Your task to perform on an android device: Open sound settings Image 0: 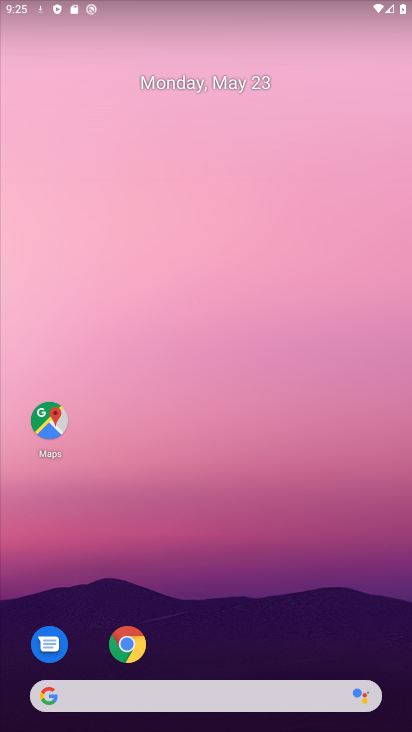
Step 0: drag from (272, 701) to (269, 294)
Your task to perform on an android device: Open sound settings Image 1: 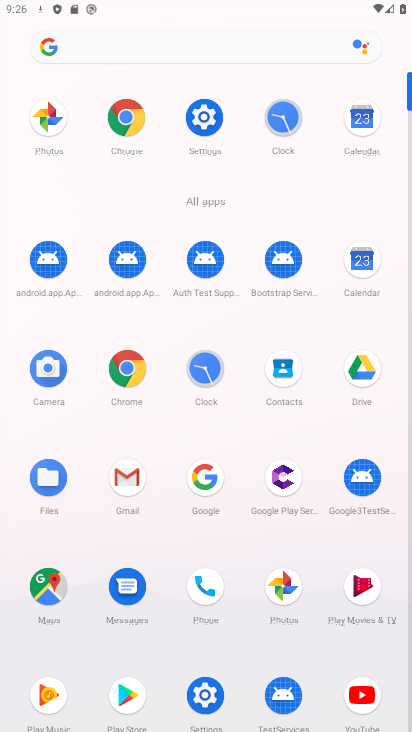
Step 1: click (203, 130)
Your task to perform on an android device: Open sound settings Image 2: 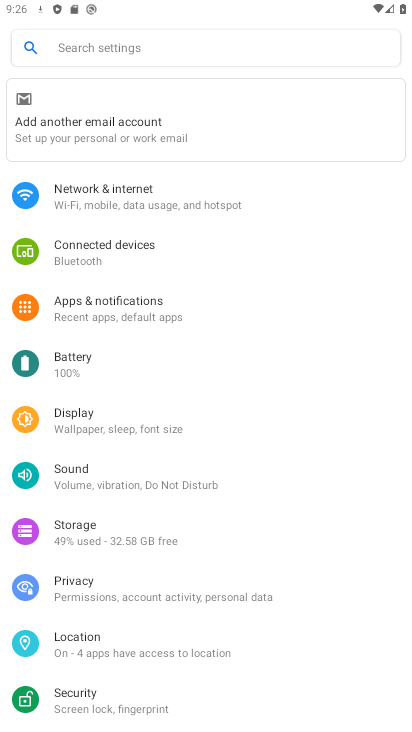
Step 2: click (142, 44)
Your task to perform on an android device: Open sound settings Image 3: 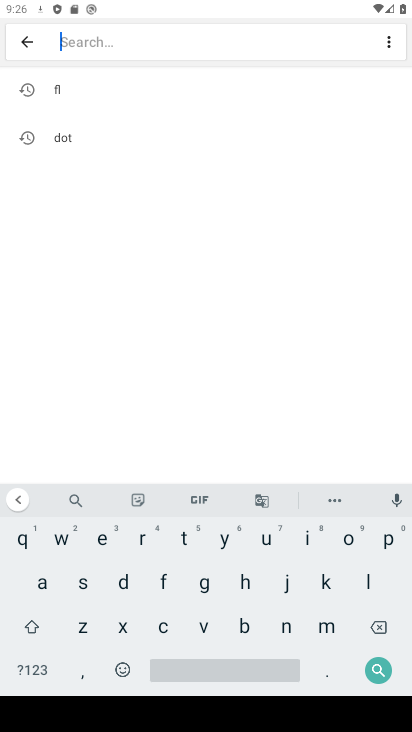
Step 3: click (48, 587)
Your task to perform on an android device: Open sound settings Image 4: 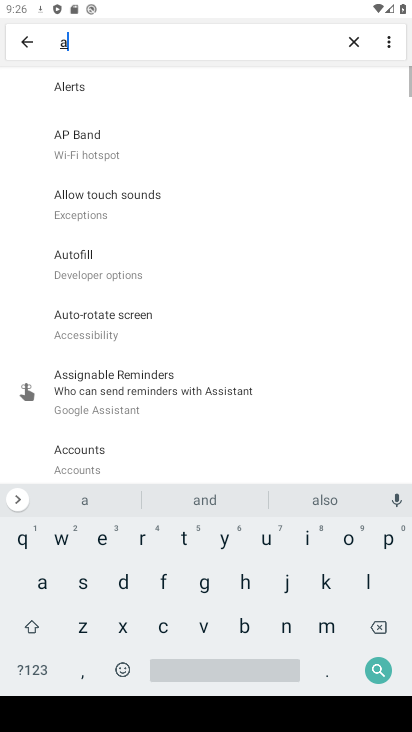
Step 4: click (284, 627)
Your task to perform on an android device: Open sound settings Image 5: 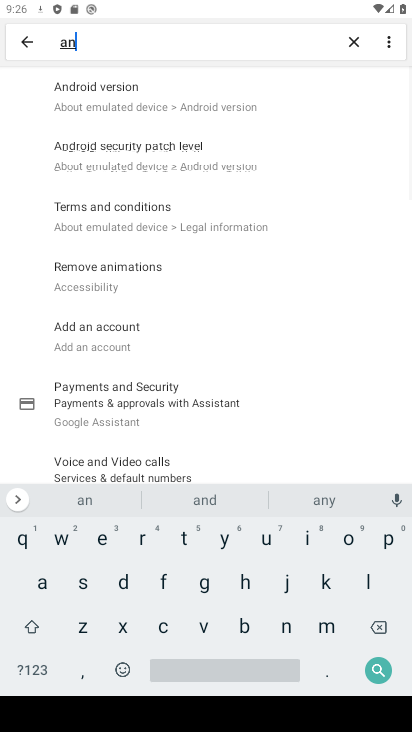
Step 5: click (177, 97)
Your task to perform on an android device: Open sound settings Image 6: 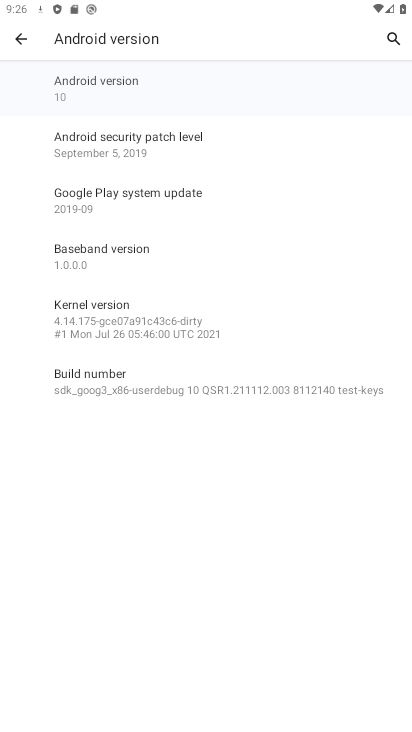
Step 6: task complete